Your task to perform on an android device: check out phone information Image 0: 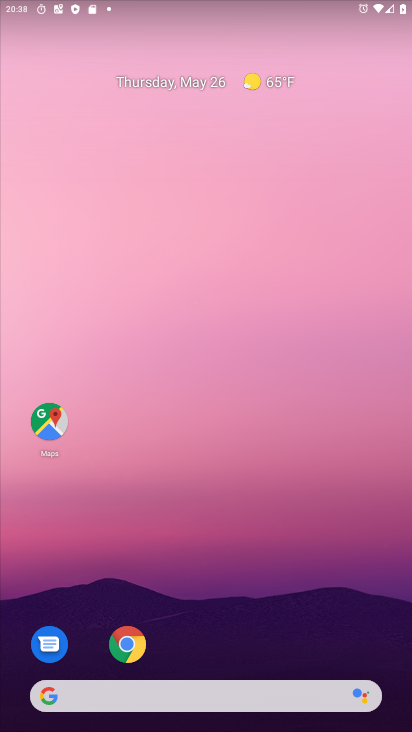
Step 0: drag from (222, 646) to (304, 176)
Your task to perform on an android device: check out phone information Image 1: 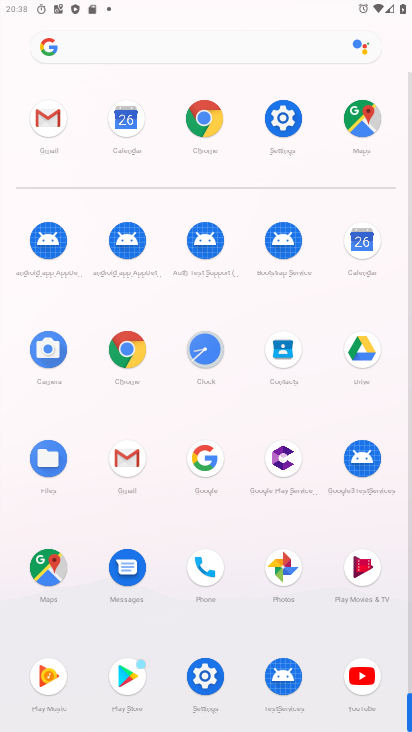
Step 1: click (284, 117)
Your task to perform on an android device: check out phone information Image 2: 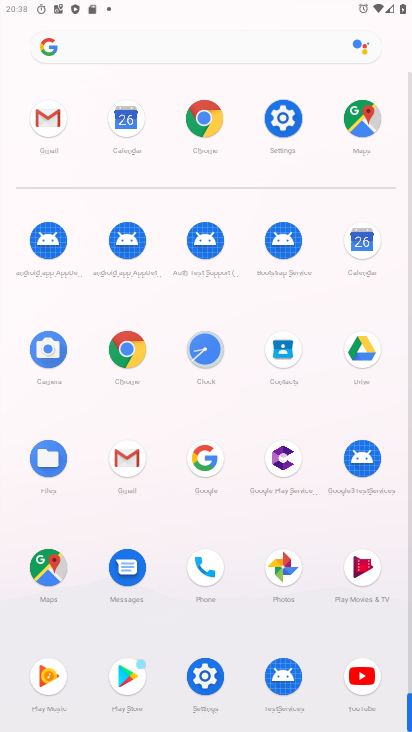
Step 2: click (285, 116)
Your task to perform on an android device: check out phone information Image 3: 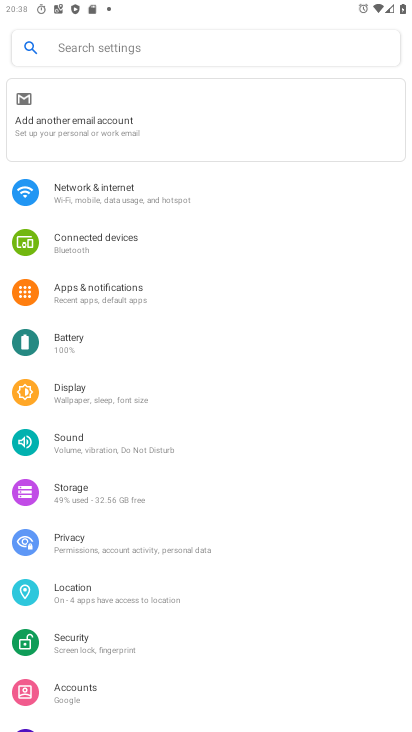
Step 3: drag from (155, 686) to (284, 8)
Your task to perform on an android device: check out phone information Image 4: 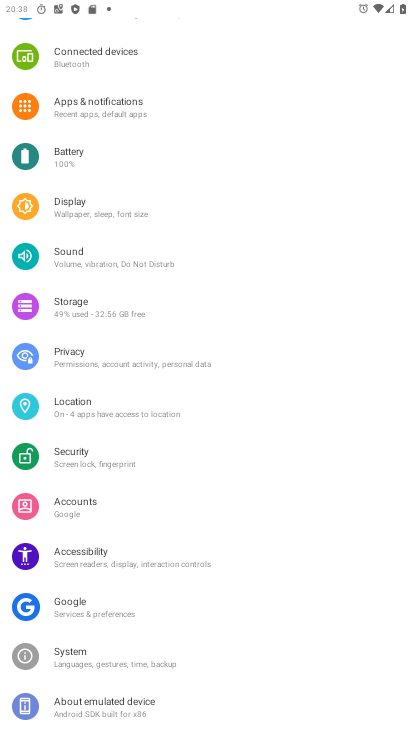
Step 4: click (149, 711)
Your task to perform on an android device: check out phone information Image 5: 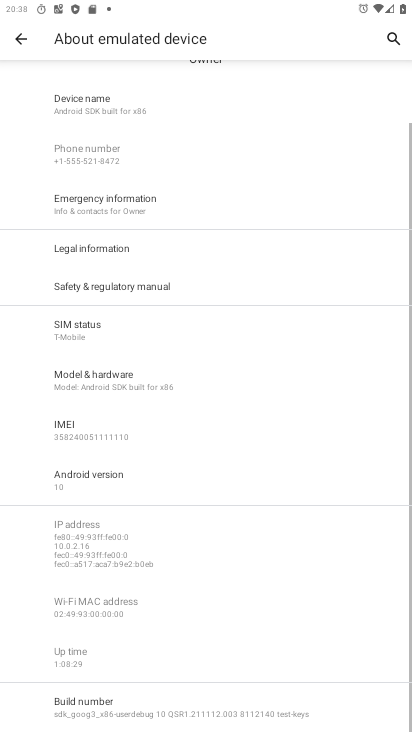
Step 5: task complete